Your task to perform on an android device: turn on improve location accuracy Image 0: 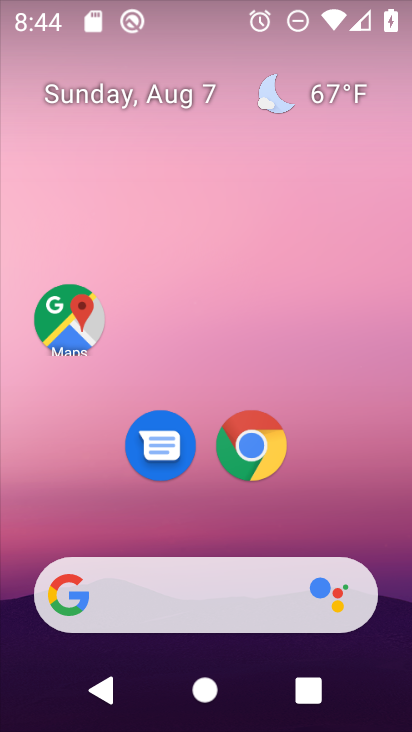
Step 0: press home button
Your task to perform on an android device: turn on improve location accuracy Image 1: 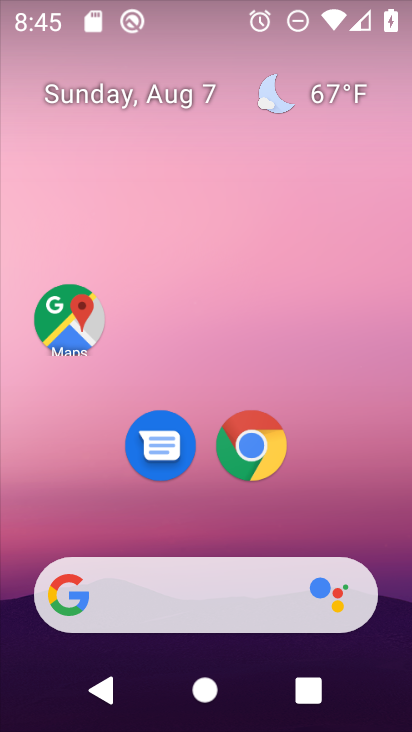
Step 1: drag from (320, 516) to (354, 16)
Your task to perform on an android device: turn on improve location accuracy Image 2: 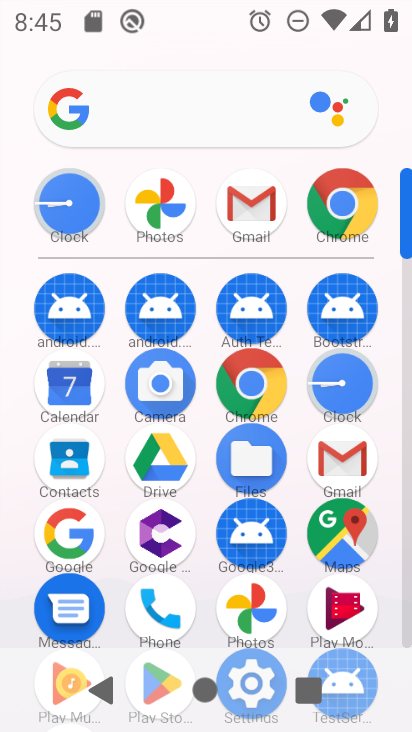
Step 2: drag from (199, 577) to (211, 160)
Your task to perform on an android device: turn on improve location accuracy Image 3: 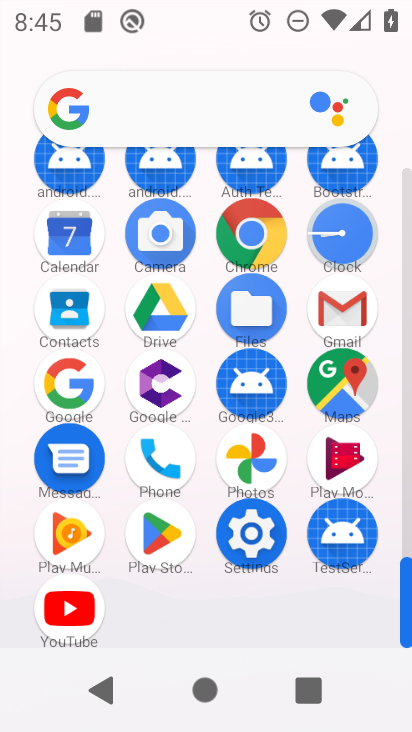
Step 3: click (248, 523)
Your task to perform on an android device: turn on improve location accuracy Image 4: 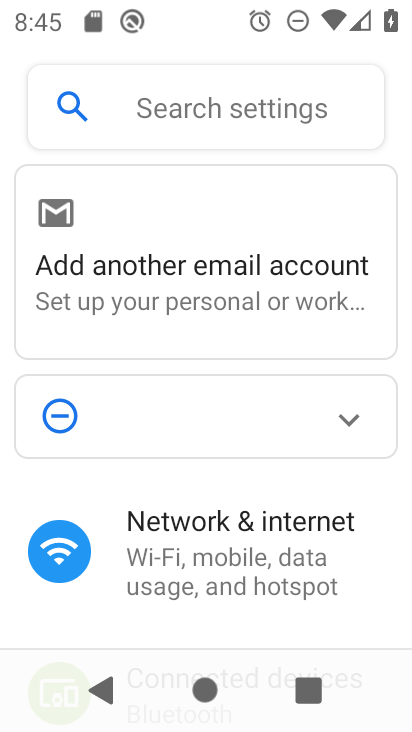
Step 4: drag from (248, 607) to (262, 90)
Your task to perform on an android device: turn on improve location accuracy Image 5: 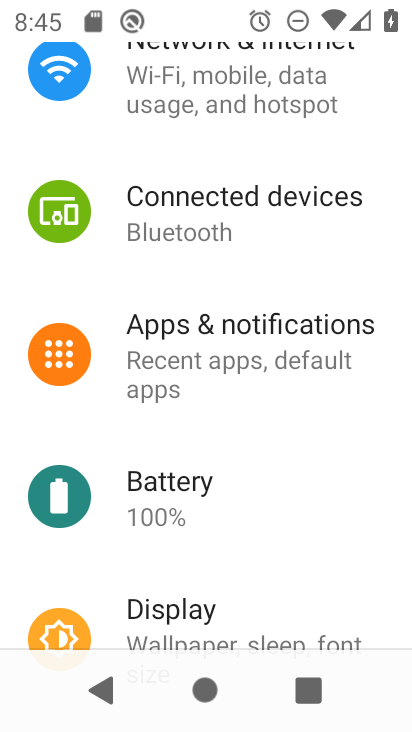
Step 5: drag from (256, 590) to (246, 85)
Your task to perform on an android device: turn on improve location accuracy Image 6: 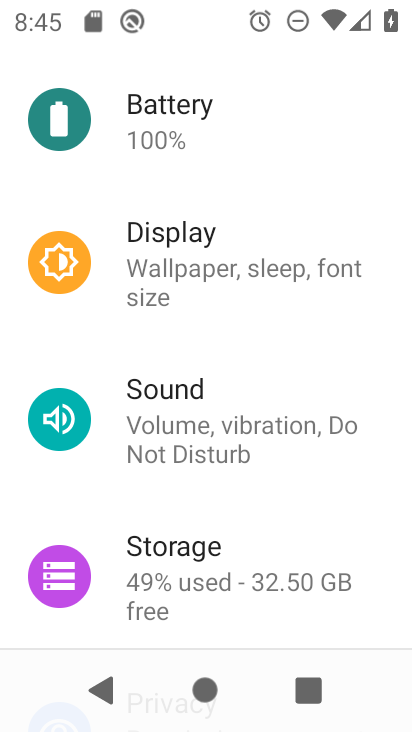
Step 6: drag from (252, 594) to (271, 42)
Your task to perform on an android device: turn on improve location accuracy Image 7: 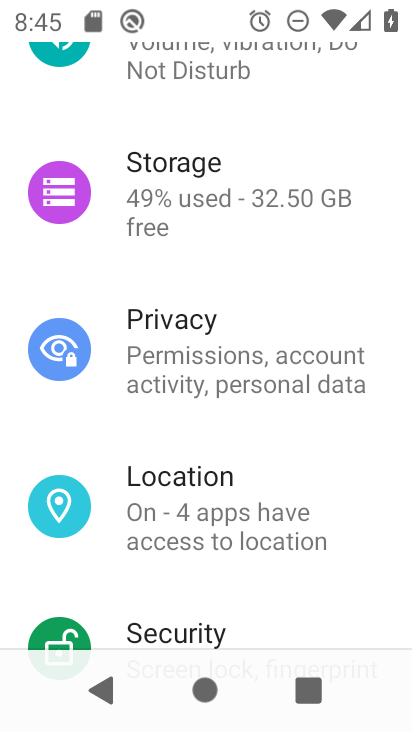
Step 7: click (252, 480)
Your task to perform on an android device: turn on improve location accuracy Image 8: 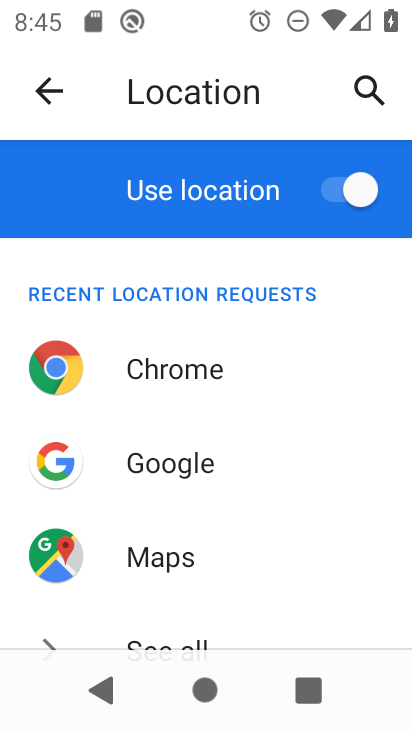
Step 8: drag from (267, 620) to (293, 186)
Your task to perform on an android device: turn on improve location accuracy Image 9: 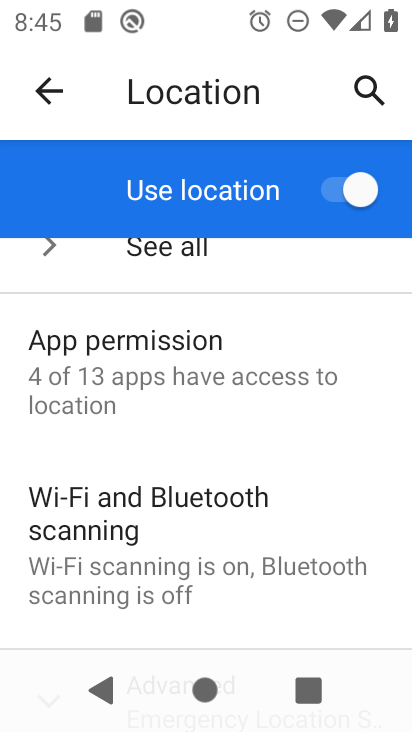
Step 9: drag from (266, 605) to (265, 145)
Your task to perform on an android device: turn on improve location accuracy Image 10: 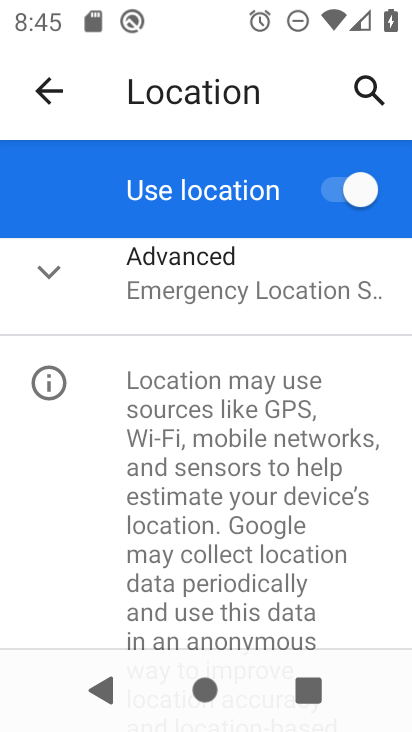
Step 10: click (45, 300)
Your task to perform on an android device: turn on improve location accuracy Image 11: 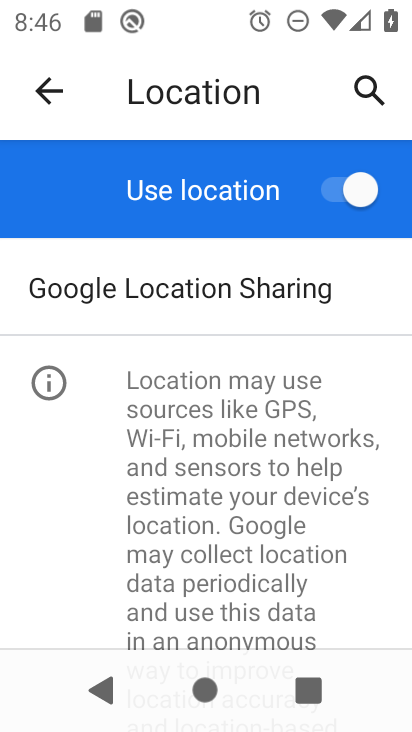
Step 11: drag from (165, 320) to (217, 608)
Your task to perform on an android device: turn on improve location accuracy Image 12: 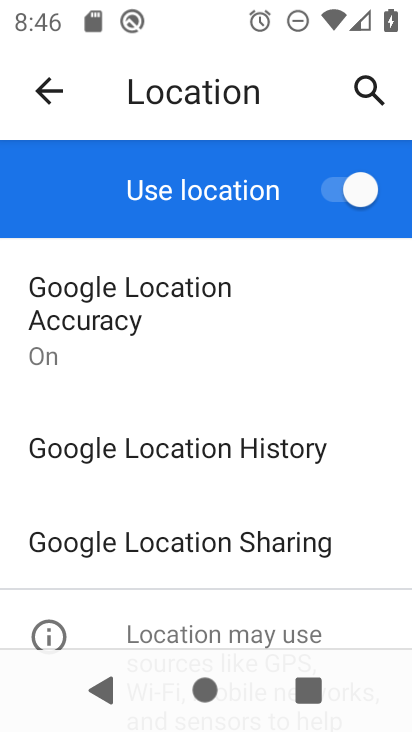
Step 12: click (165, 317)
Your task to perform on an android device: turn on improve location accuracy Image 13: 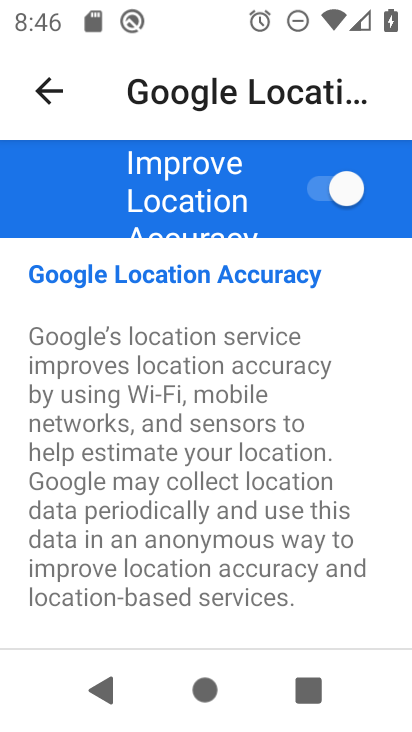
Step 13: task complete